Your task to perform on an android device: change notifications settings Image 0: 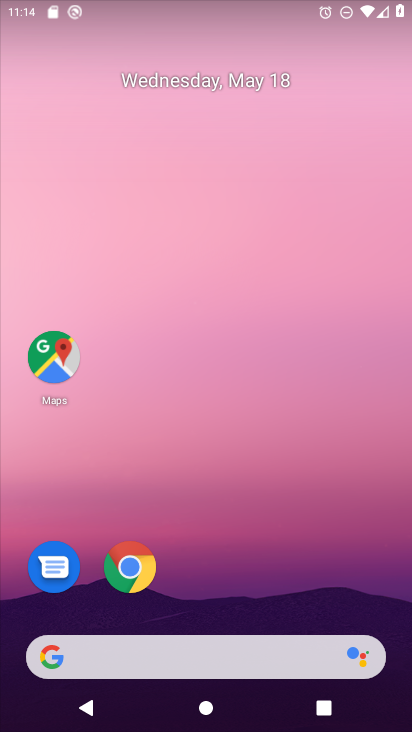
Step 0: drag from (228, 672) to (261, 252)
Your task to perform on an android device: change notifications settings Image 1: 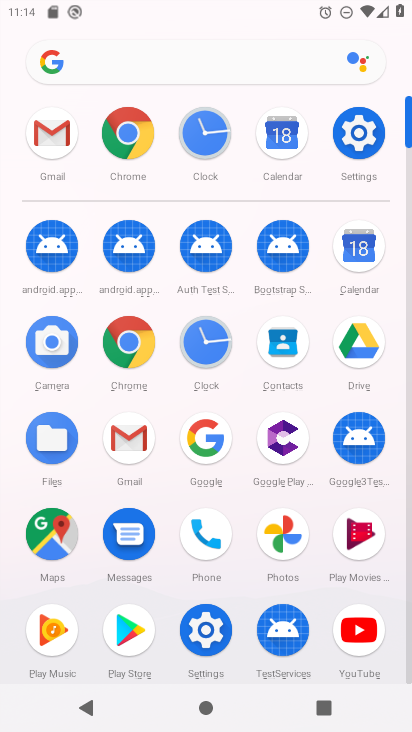
Step 1: click (352, 143)
Your task to perform on an android device: change notifications settings Image 2: 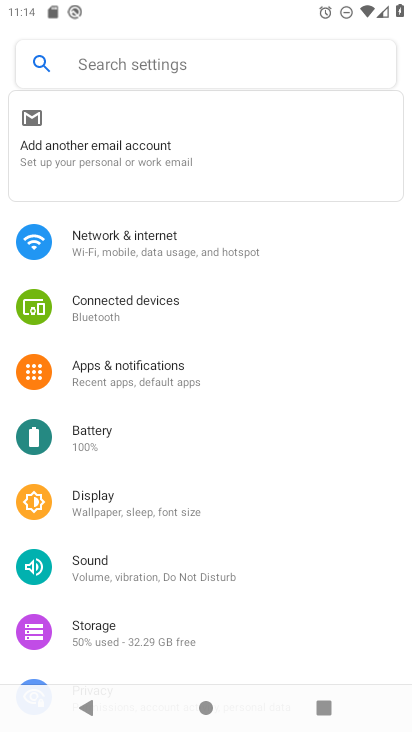
Step 2: click (159, 68)
Your task to perform on an android device: change notifications settings Image 3: 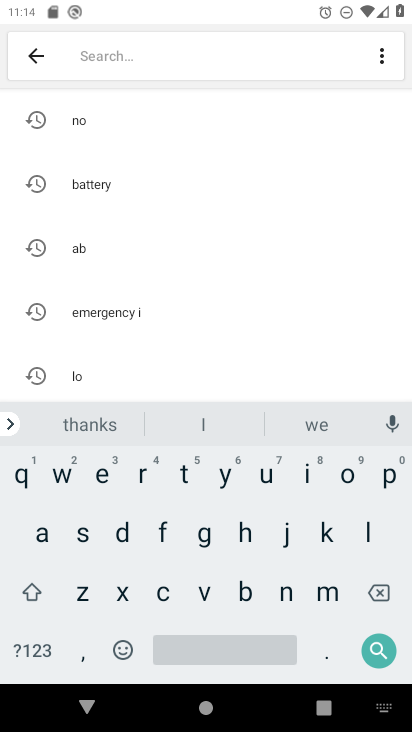
Step 3: click (288, 588)
Your task to perform on an android device: change notifications settings Image 4: 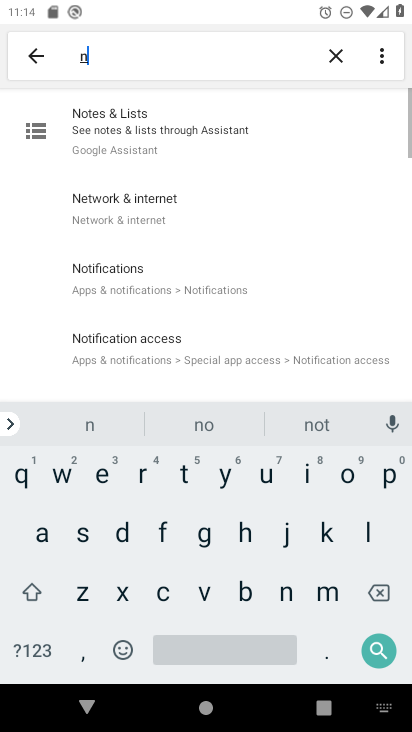
Step 4: click (340, 475)
Your task to perform on an android device: change notifications settings Image 5: 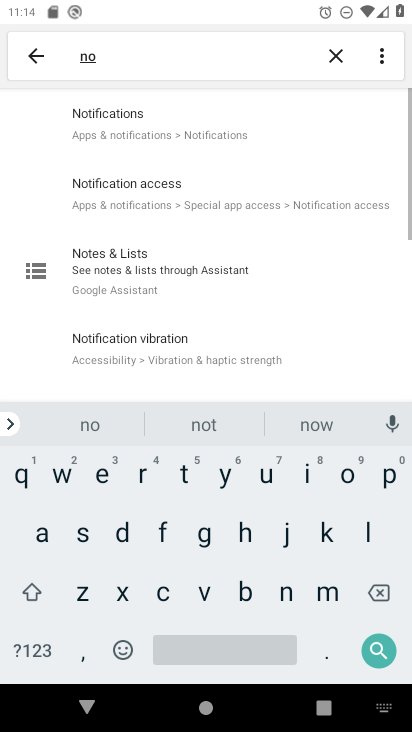
Step 5: click (129, 141)
Your task to perform on an android device: change notifications settings Image 6: 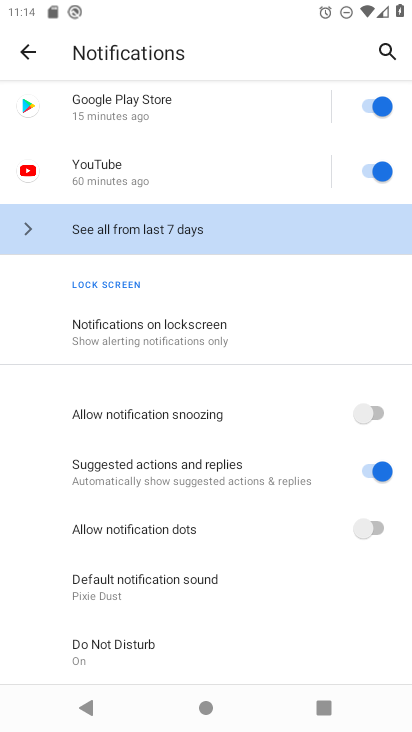
Step 6: click (173, 322)
Your task to perform on an android device: change notifications settings Image 7: 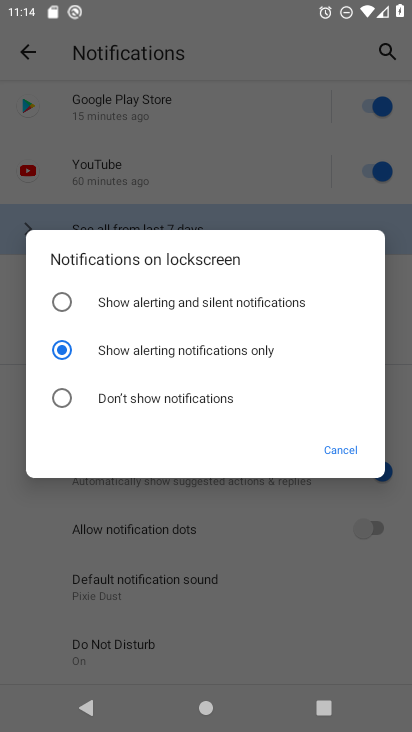
Step 7: click (133, 312)
Your task to perform on an android device: change notifications settings Image 8: 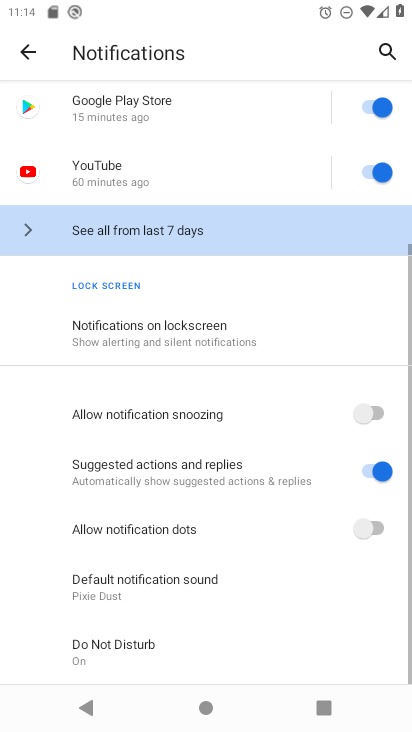
Step 8: task complete